Your task to perform on an android device: Open notification settings Image 0: 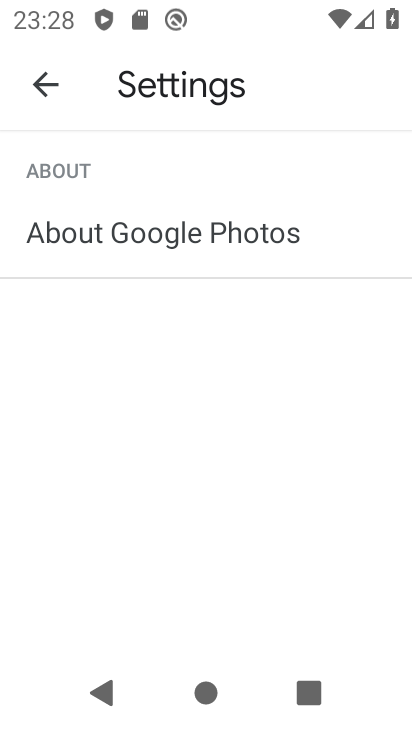
Step 0: press home button
Your task to perform on an android device: Open notification settings Image 1: 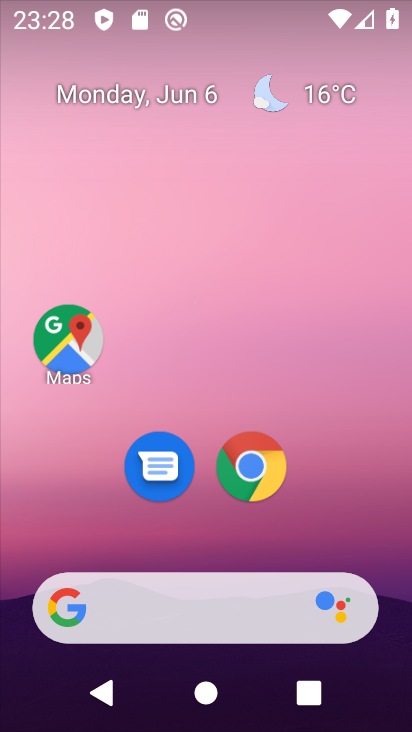
Step 1: drag from (334, 534) to (333, 3)
Your task to perform on an android device: Open notification settings Image 2: 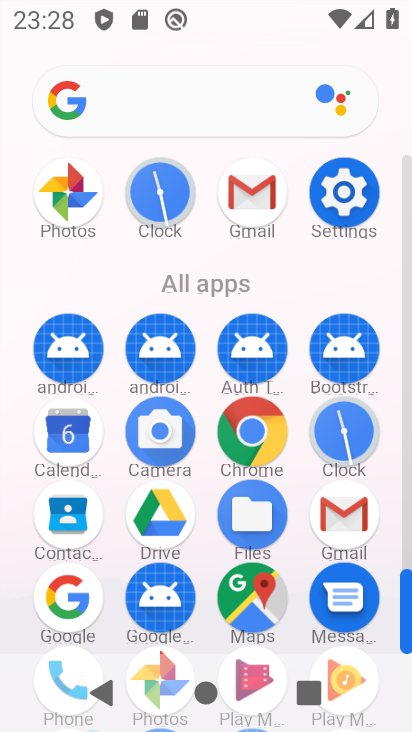
Step 2: click (347, 186)
Your task to perform on an android device: Open notification settings Image 3: 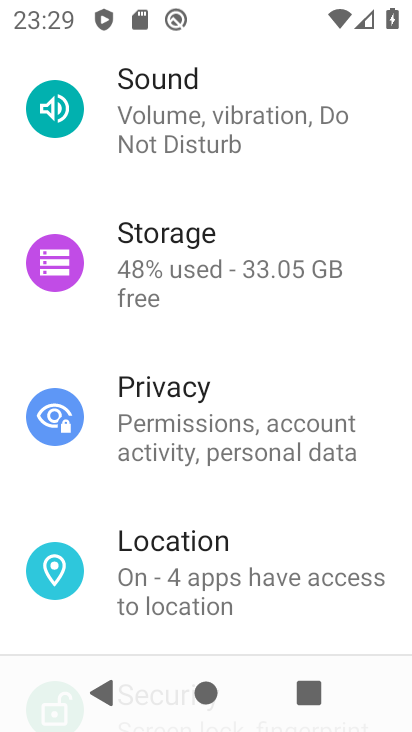
Step 3: drag from (240, 277) to (158, 682)
Your task to perform on an android device: Open notification settings Image 4: 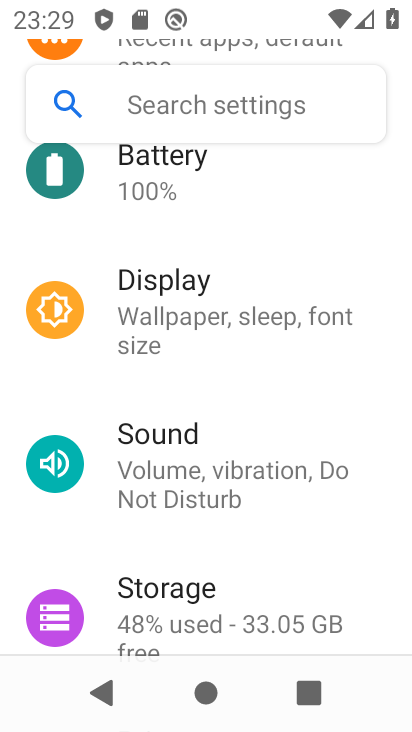
Step 4: drag from (221, 242) to (178, 594)
Your task to perform on an android device: Open notification settings Image 5: 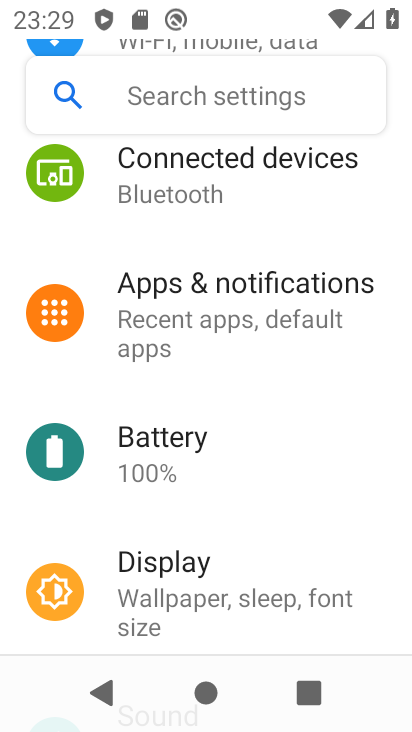
Step 5: click (225, 309)
Your task to perform on an android device: Open notification settings Image 6: 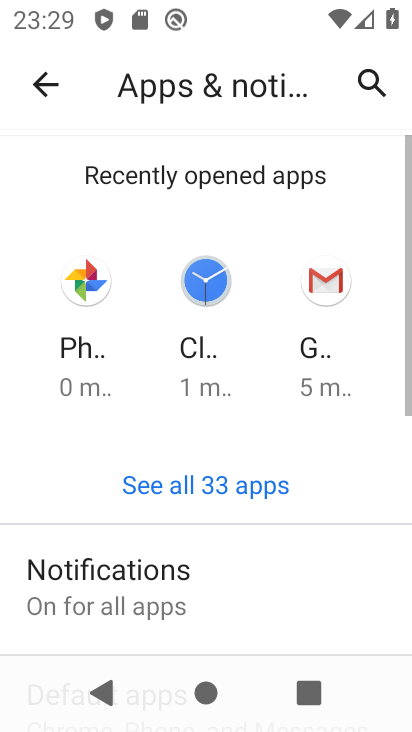
Step 6: click (159, 601)
Your task to perform on an android device: Open notification settings Image 7: 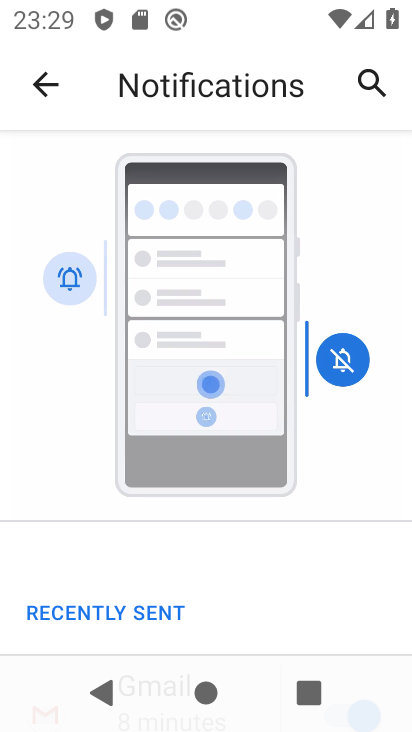
Step 7: task complete